Your task to perform on an android device: choose inbox layout in the gmail app Image 0: 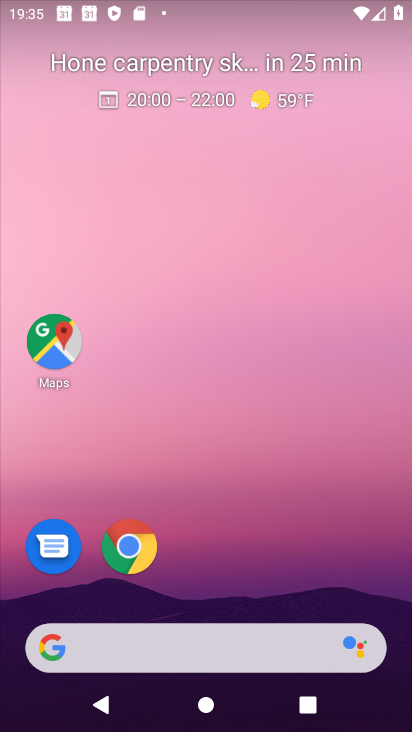
Step 0: drag from (308, 567) to (265, 229)
Your task to perform on an android device: choose inbox layout in the gmail app Image 1: 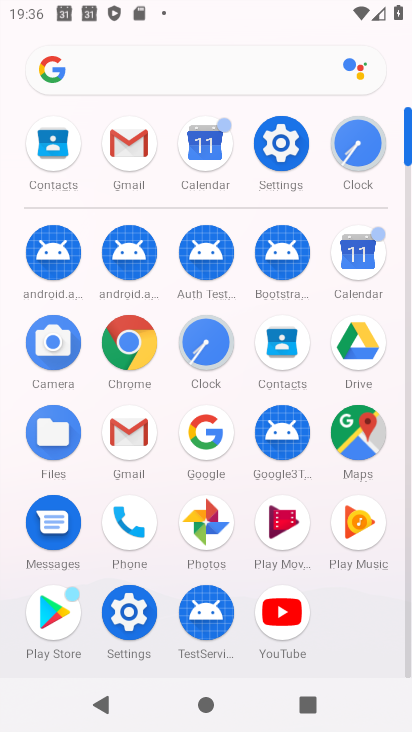
Step 1: click (121, 434)
Your task to perform on an android device: choose inbox layout in the gmail app Image 2: 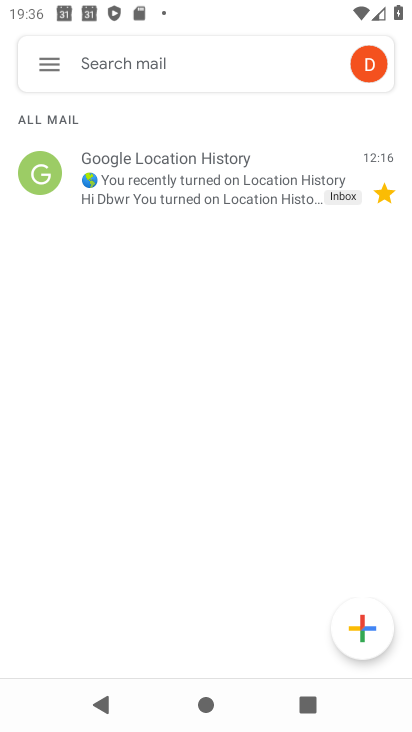
Step 2: click (43, 65)
Your task to perform on an android device: choose inbox layout in the gmail app Image 3: 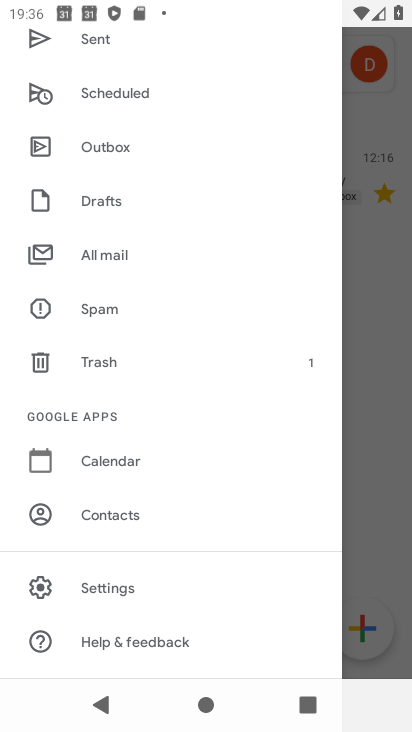
Step 3: click (134, 588)
Your task to perform on an android device: choose inbox layout in the gmail app Image 4: 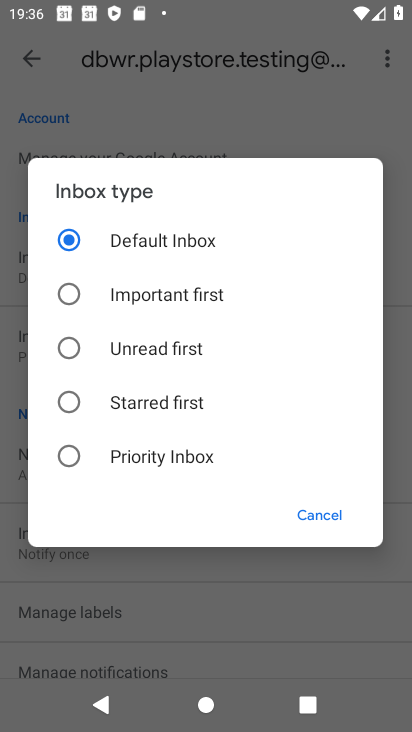
Step 4: click (139, 341)
Your task to perform on an android device: choose inbox layout in the gmail app Image 5: 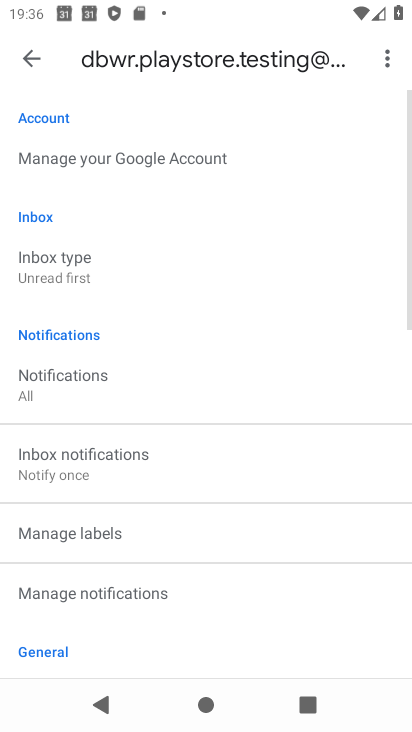
Step 5: task complete